Your task to perform on an android device: add a contact Image 0: 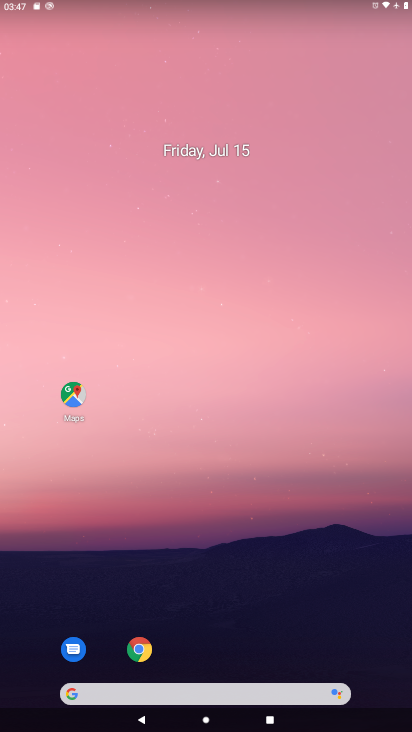
Step 0: drag from (398, 659) to (366, 140)
Your task to perform on an android device: add a contact Image 1: 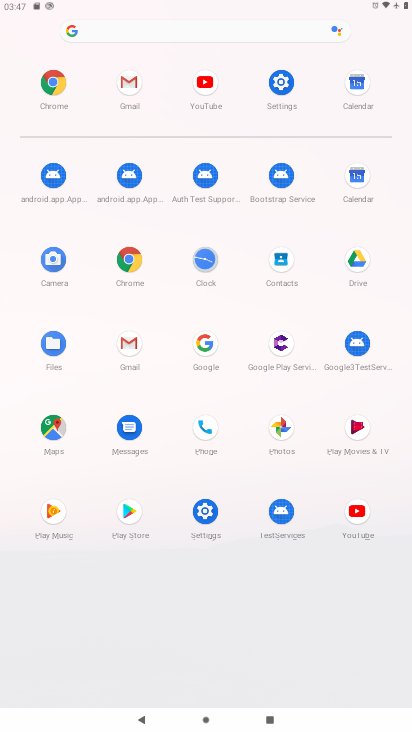
Step 1: click (280, 258)
Your task to perform on an android device: add a contact Image 2: 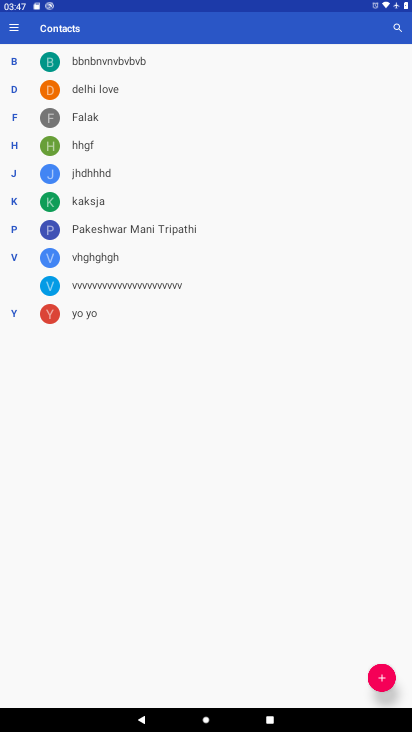
Step 2: click (381, 676)
Your task to perform on an android device: add a contact Image 3: 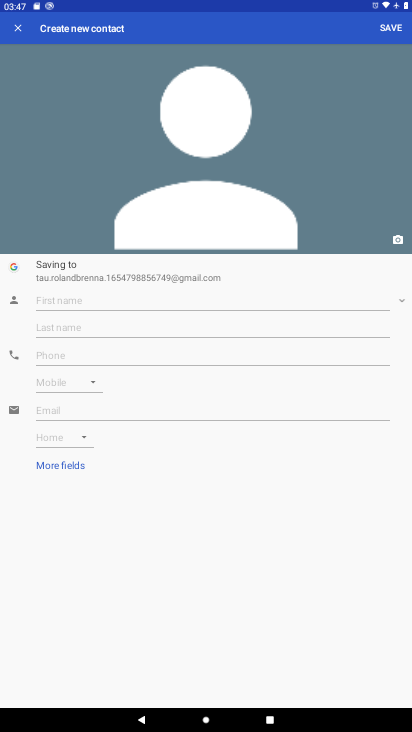
Step 3: click (84, 304)
Your task to perform on an android device: add a contact Image 4: 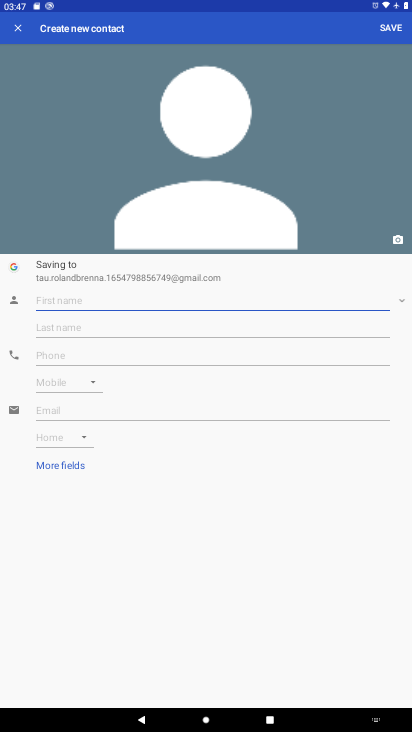
Step 4: type "kjhgsdfg"
Your task to perform on an android device: add a contact Image 5: 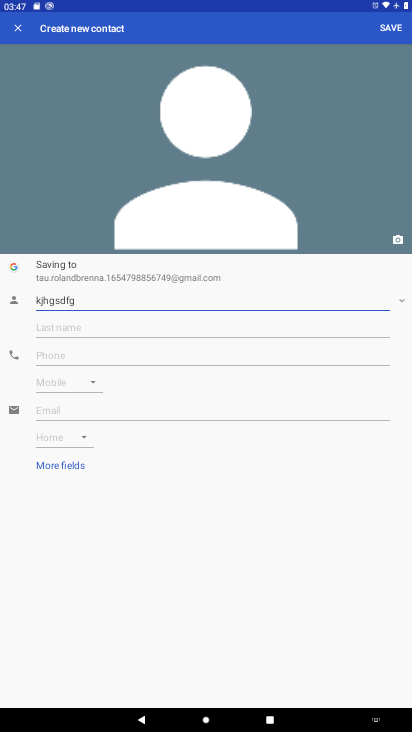
Step 5: click (85, 354)
Your task to perform on an android device: add a contact Image 6: 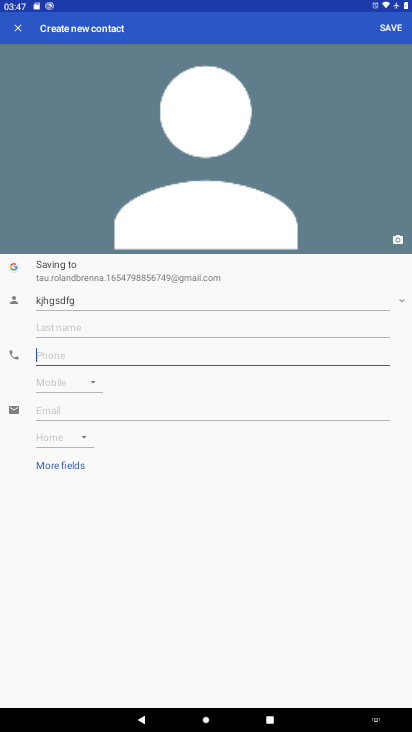
Step 6: type "0987654333333"
Your task to perform on an android device: add a contact Image 7: 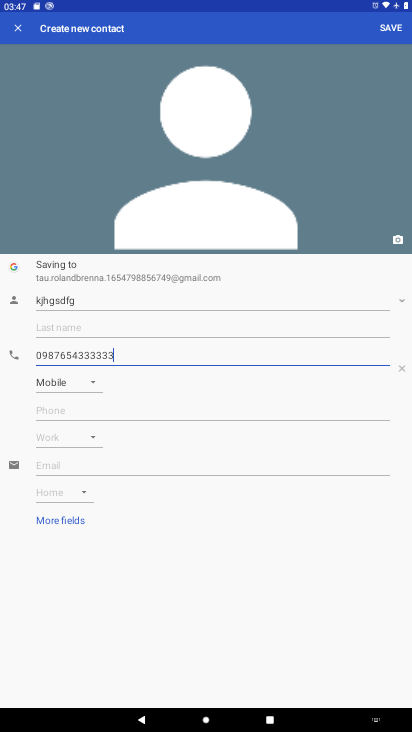
Step 7: click (92, 387)
Your task to perform on an android device: add a contact Image 8: 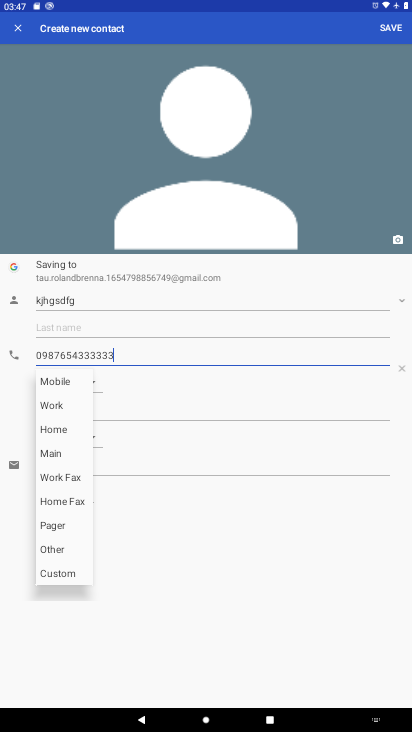
Step 8: click (51, 399)
Your task to perform on an android device: add a contact Image 9: 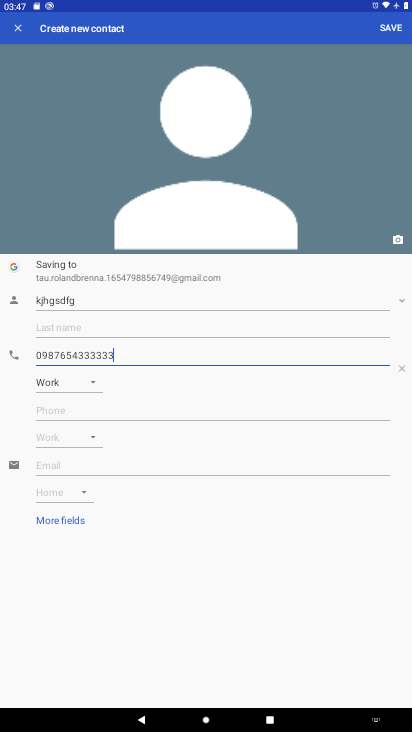
Step 9: click (391, 28)
Your task to perform on an android device: add a contact Image 10: 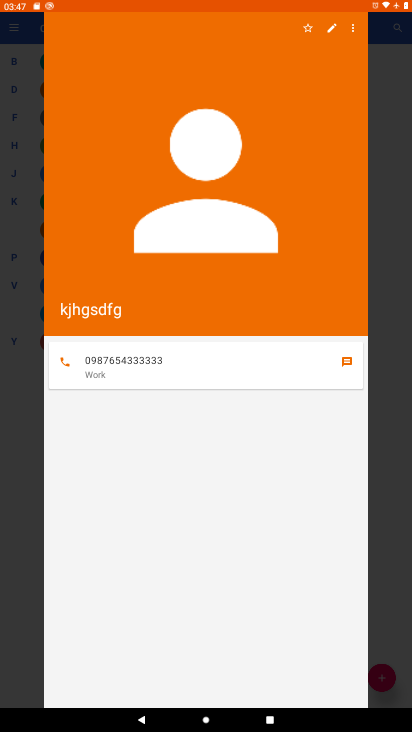
Step 10: task complete